Your task to perform on an android device: empty trash in google photos Image 0: 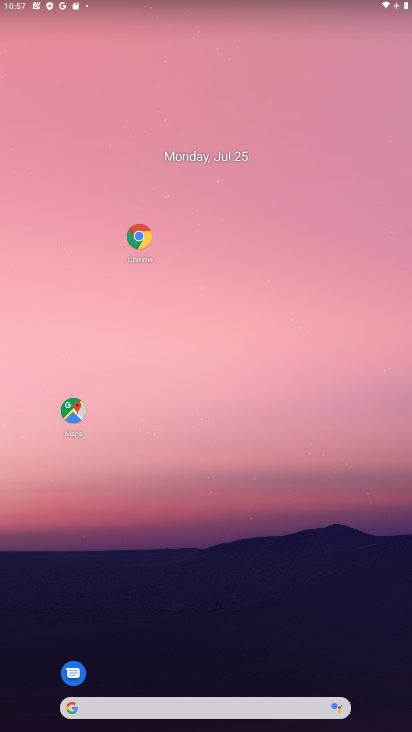
Step 0: drag from (250, 679) to (246, 156)
Your task to perform on an android device: empty trash in google photos Image 1: 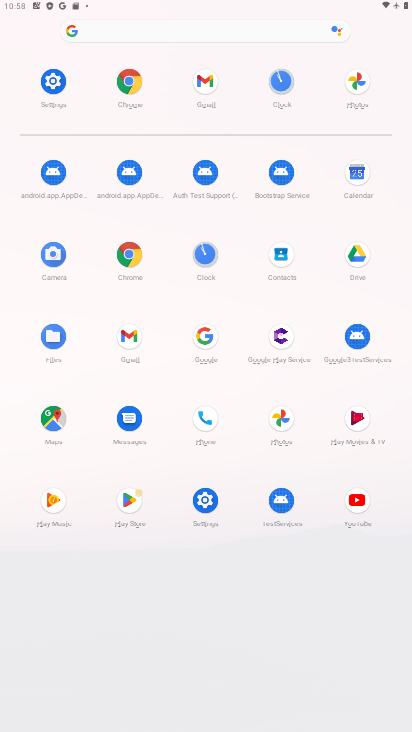
Step 1: click (355, 100)
Your task to perform on an android device: empty trash in google photos Image 2: 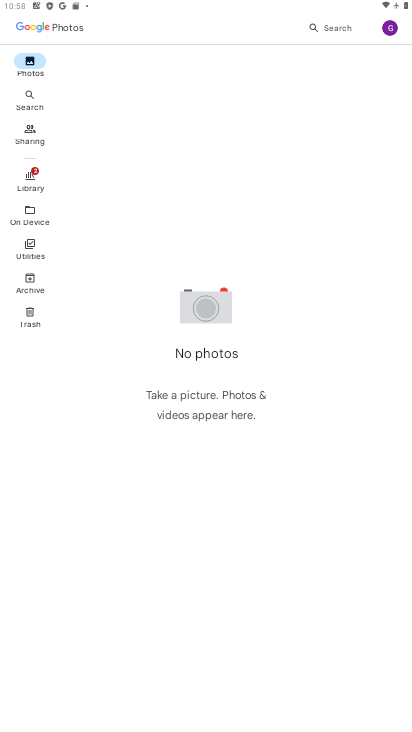
Step 2: task complete